Your task to perform on an android device: turn vacation reply on in the gmail app Image 0: 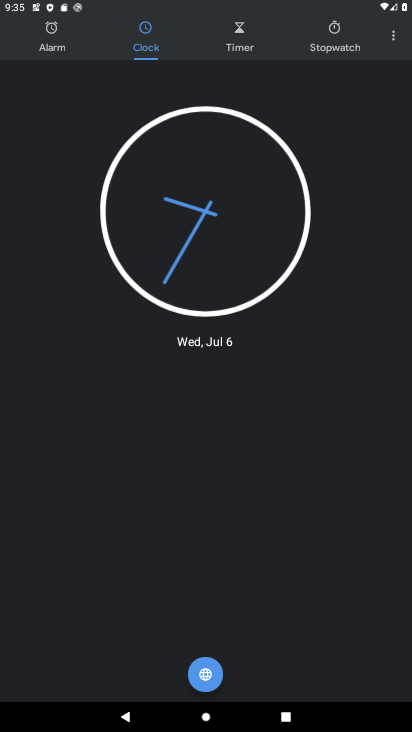
Step 0: press home button
Your task to perform on an android device: turn vacation reply on in the gmail app Image 1: 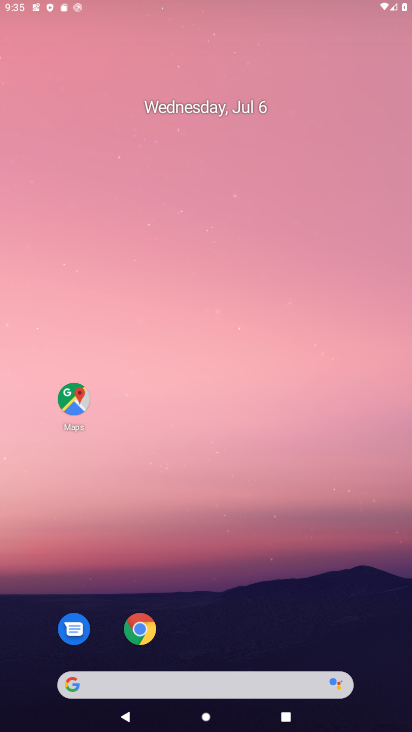
Step 1: drag from (206, 639) to (248, 147)
Your task to perform on an android device: turn vacation reply on in the gmail app Image 2: 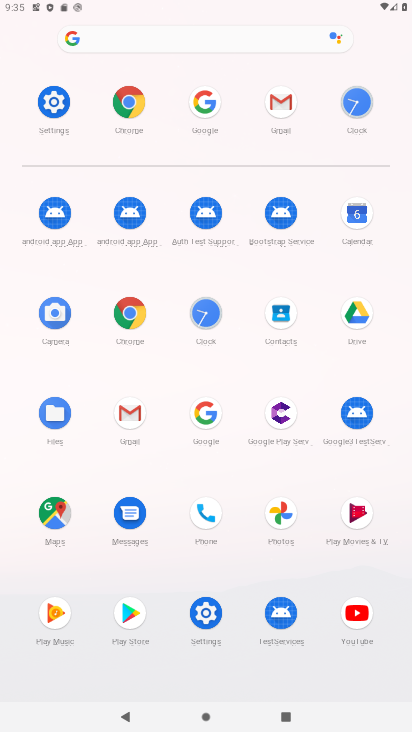
Step 2: click (283, 102)
Your task to perform on an android device: turn vacation reply on in the gmail app Image 3: 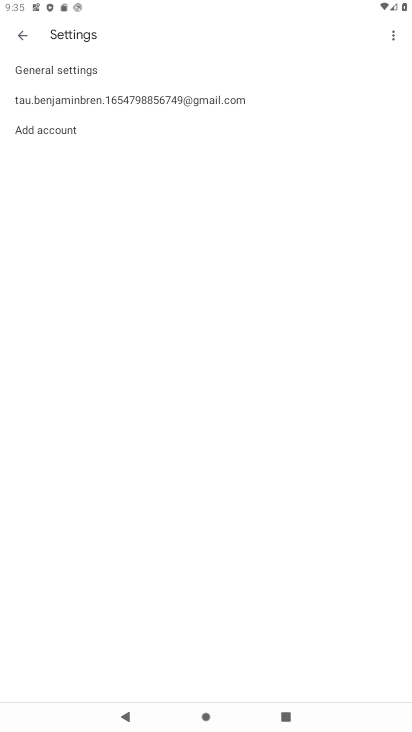
Step 3: click (151, 101)
Your task to perform on an android device: turn vacation reply on in the gmail app Image 4: 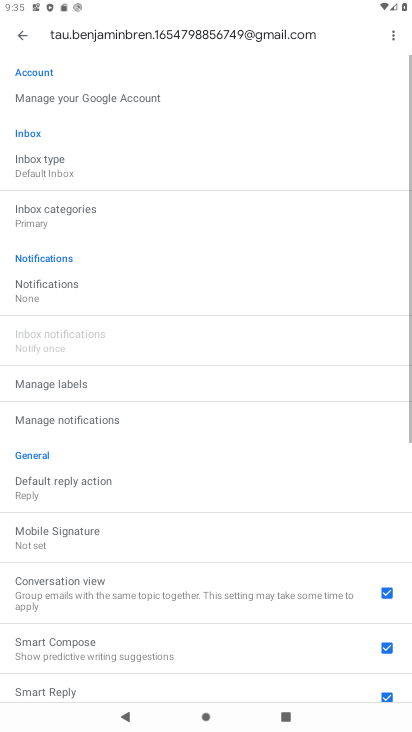
Step 4: drag from (151, 612) to (153, 195)
Your task to perform on an android device: turn vacation reply on in the gmail app Image 5: 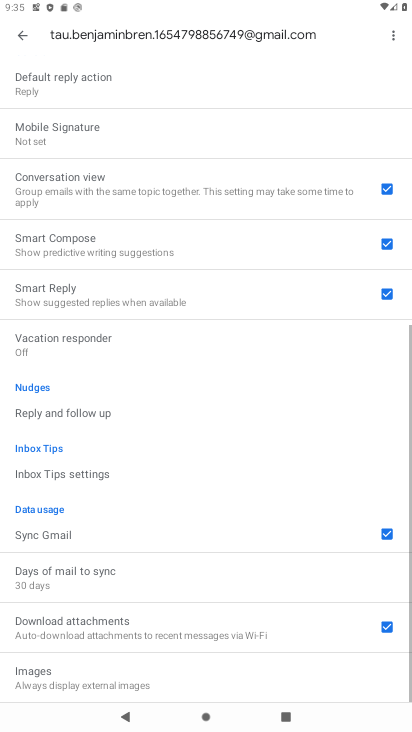
Step 5: click (75, 342)
Your task to perform on an android device: turn vacation reply on in the gmail app Image 6: 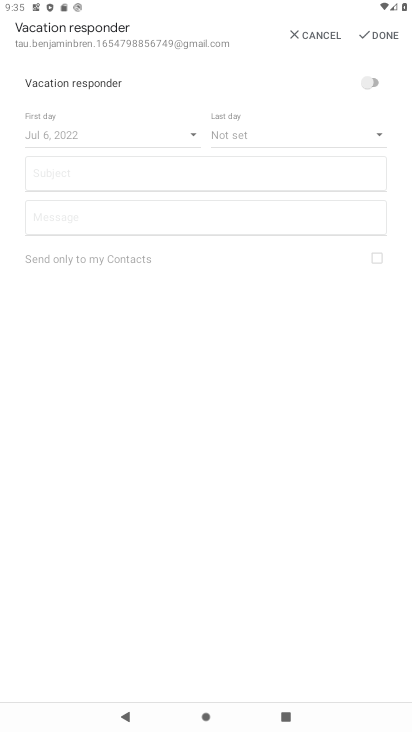
Step 6: click (370, 77)
Your task to perform on an android device: turn vacation reply on in the gmail app Image 7: 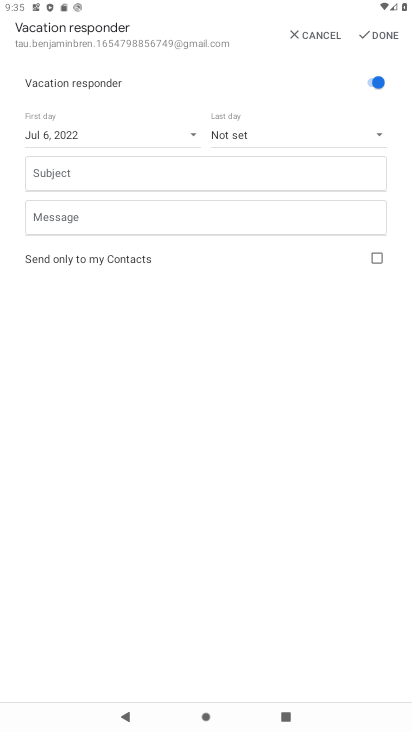
Step 7: click (105, 170)
Your task to perform on an android device: turn vacation reply on in the gmail app Image 8: 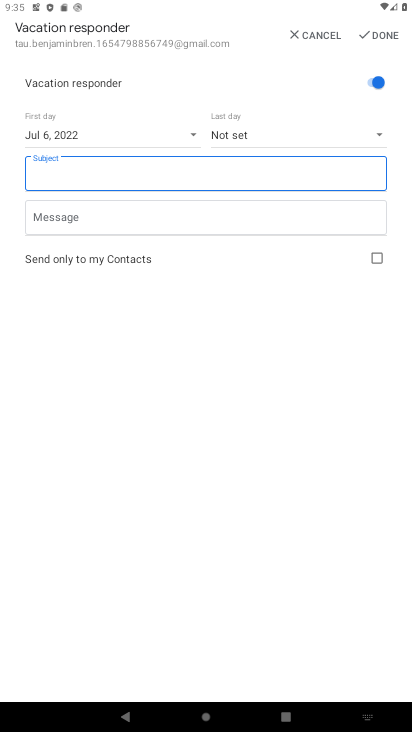
Step 8: type "jmhjkjk"
Your task to perform on an android device: turn vacation reply on in the gmail app Image 9: 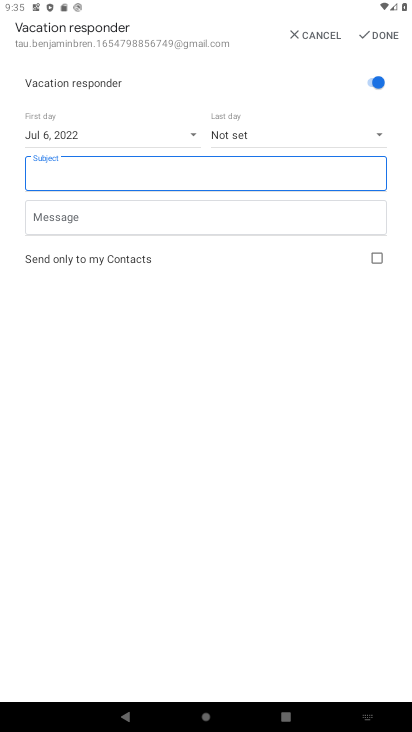
Step 9: click (384, 30)
Your task to perform on an android device: turn vacation reply on in the gmail app Image 10: 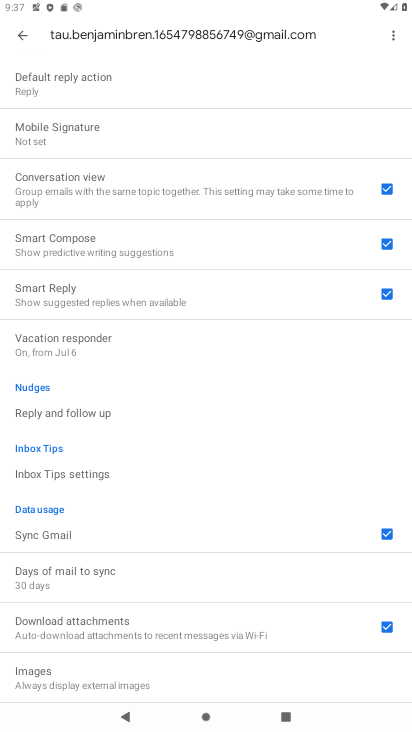
Step 10: task complete